Your task to perform on an android device: uninstall "Google Calendar" Image 0: 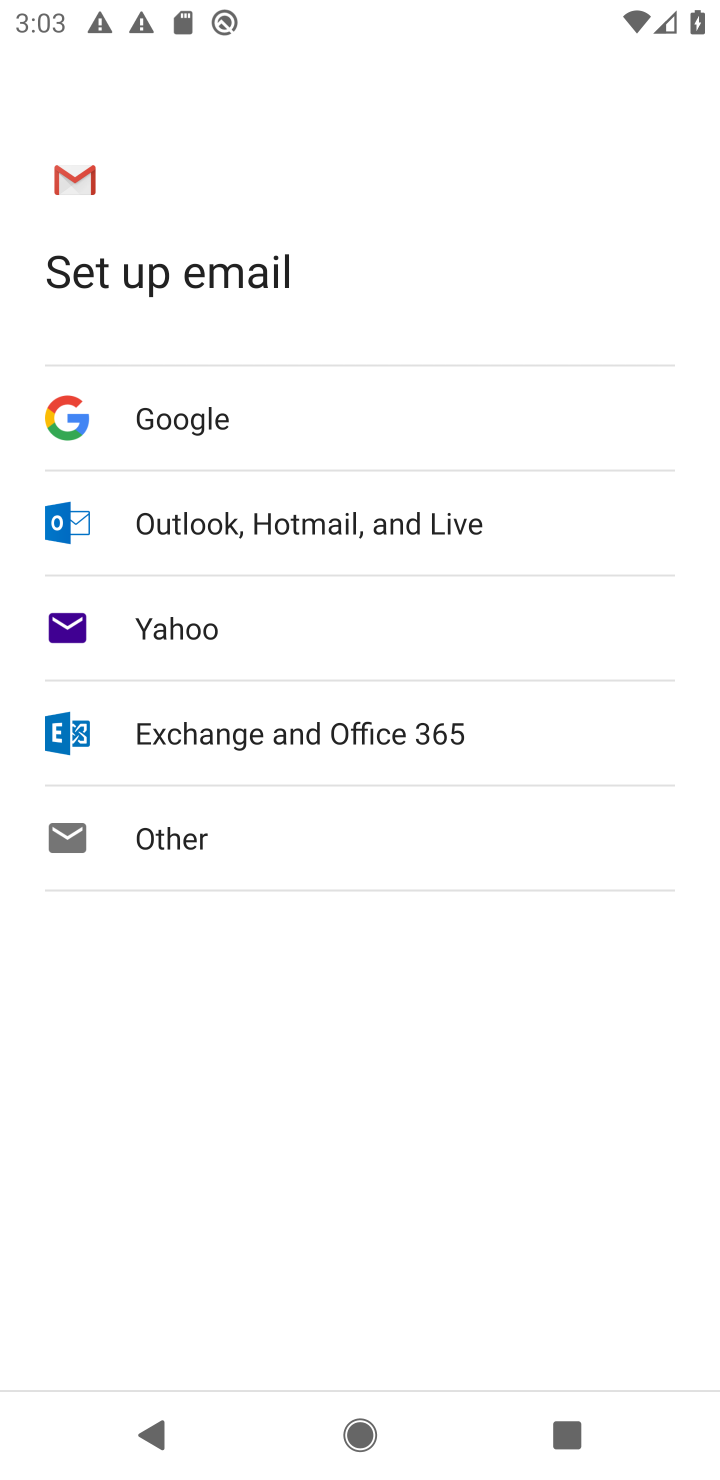
Step 0: press home button
Your task to perform on an android device: uninstall "Google Calendar" Image 1: 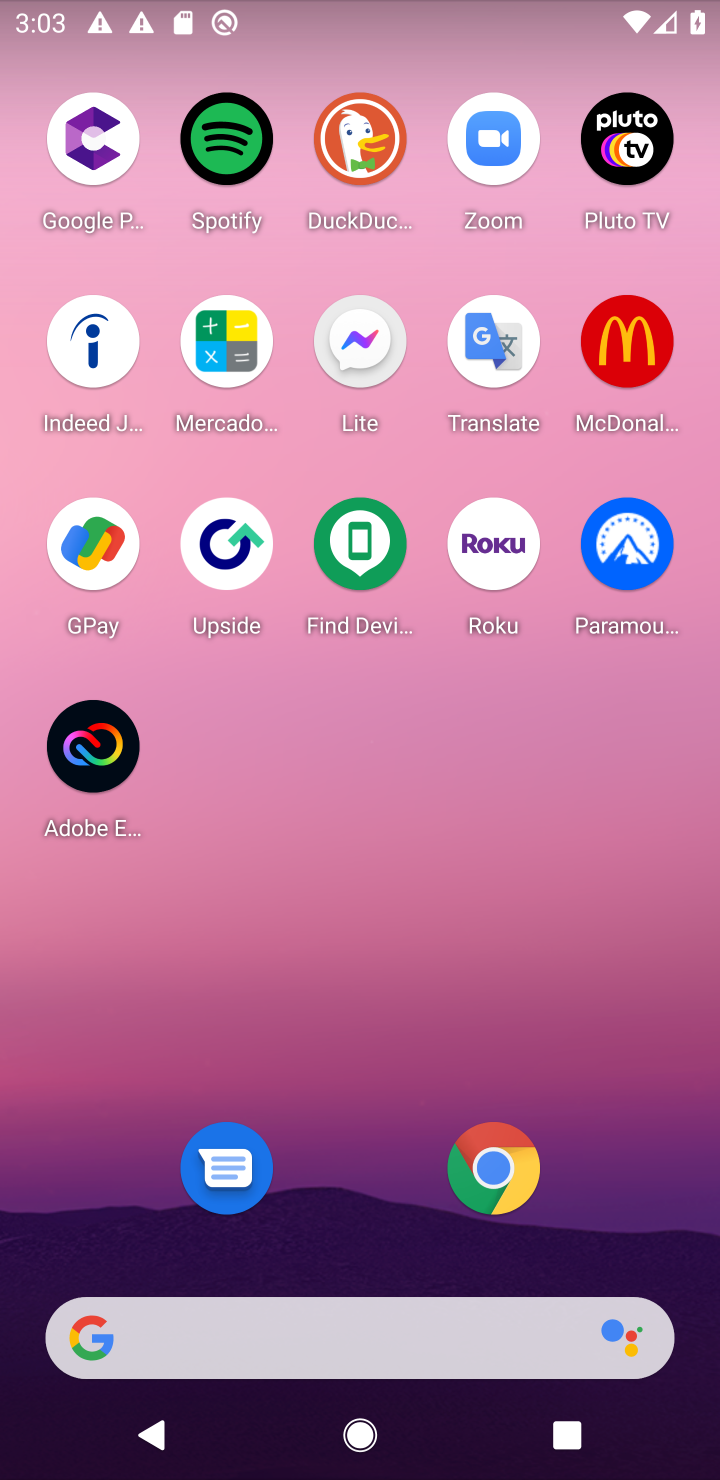
Step 1: drag from (652, 1245) to (624, 32)
Your task to perform on an android device: uninstall "Google Calendar" Image 2: 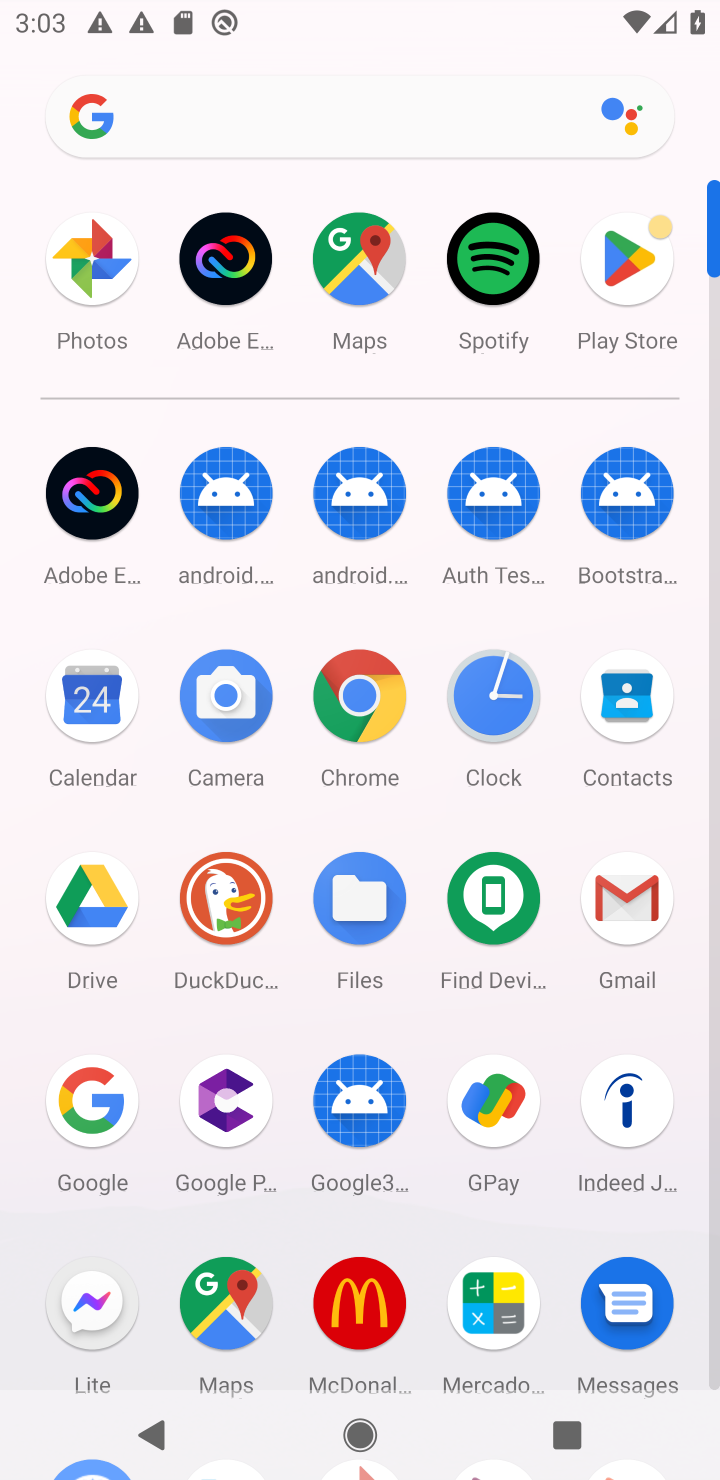
Step 2: click (718, 1332)
Your task to perform on an android device: uninstall "Google Calendar" Image 3: 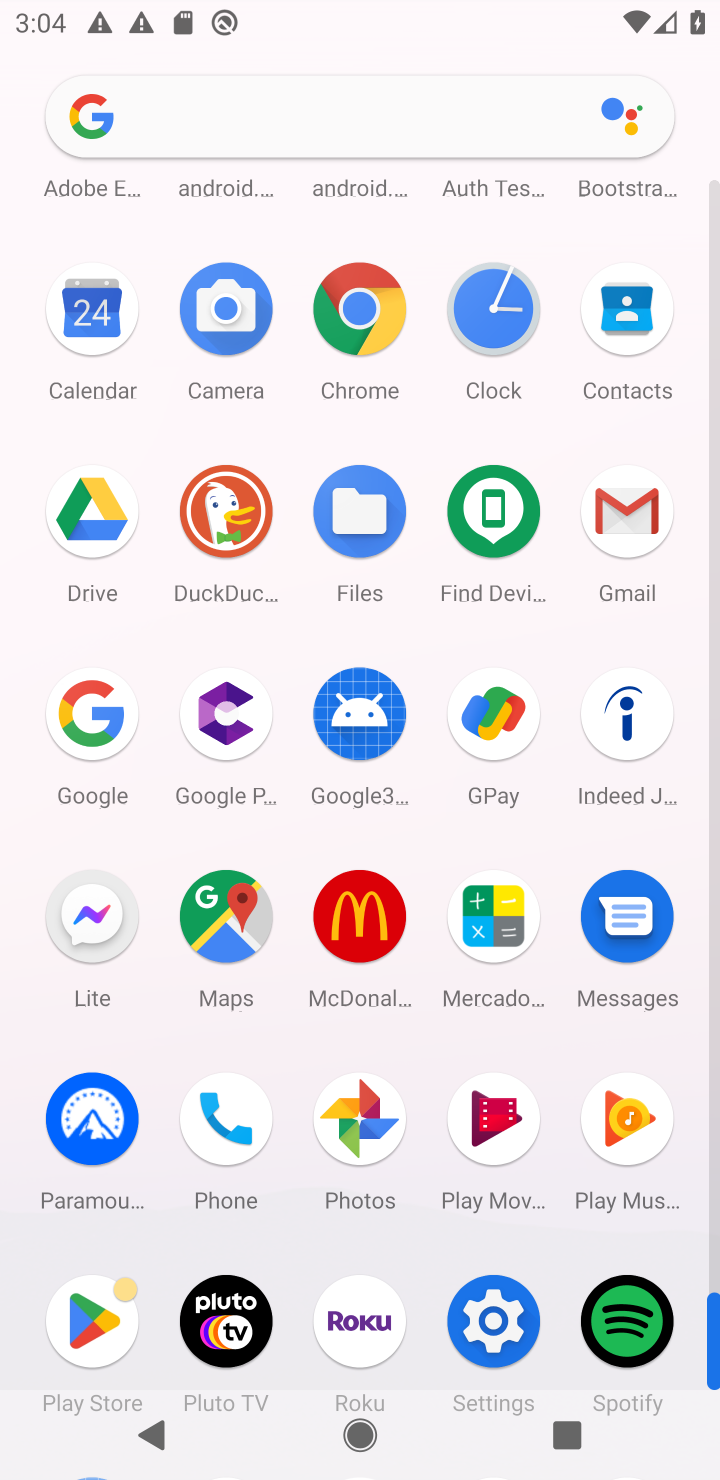
Step 3: click (96, 1326)
Your task to perform on an android device: uninstall "Google Calendar" Image 4: 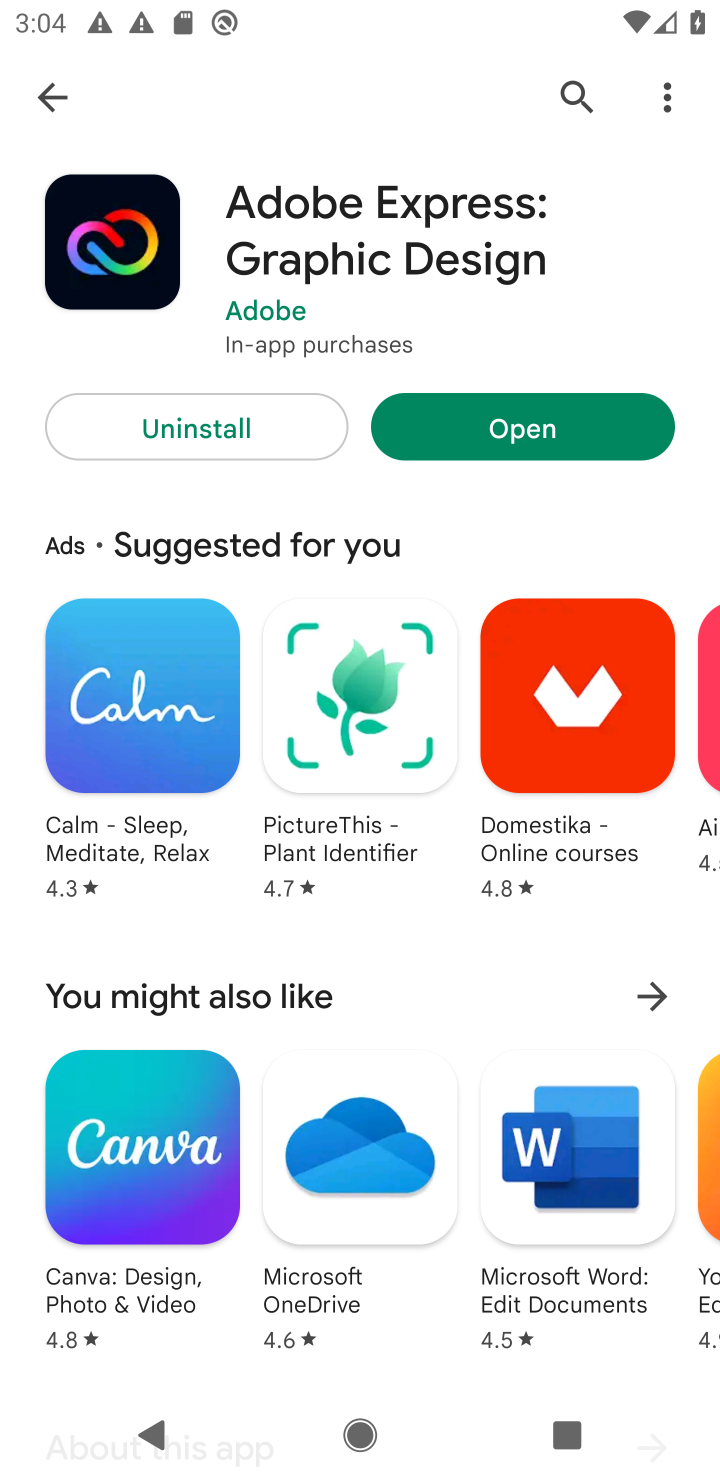
Step 4: click (565, 98)
Your task to perform on an android device: uninstall "Google Calendar" Image 5: 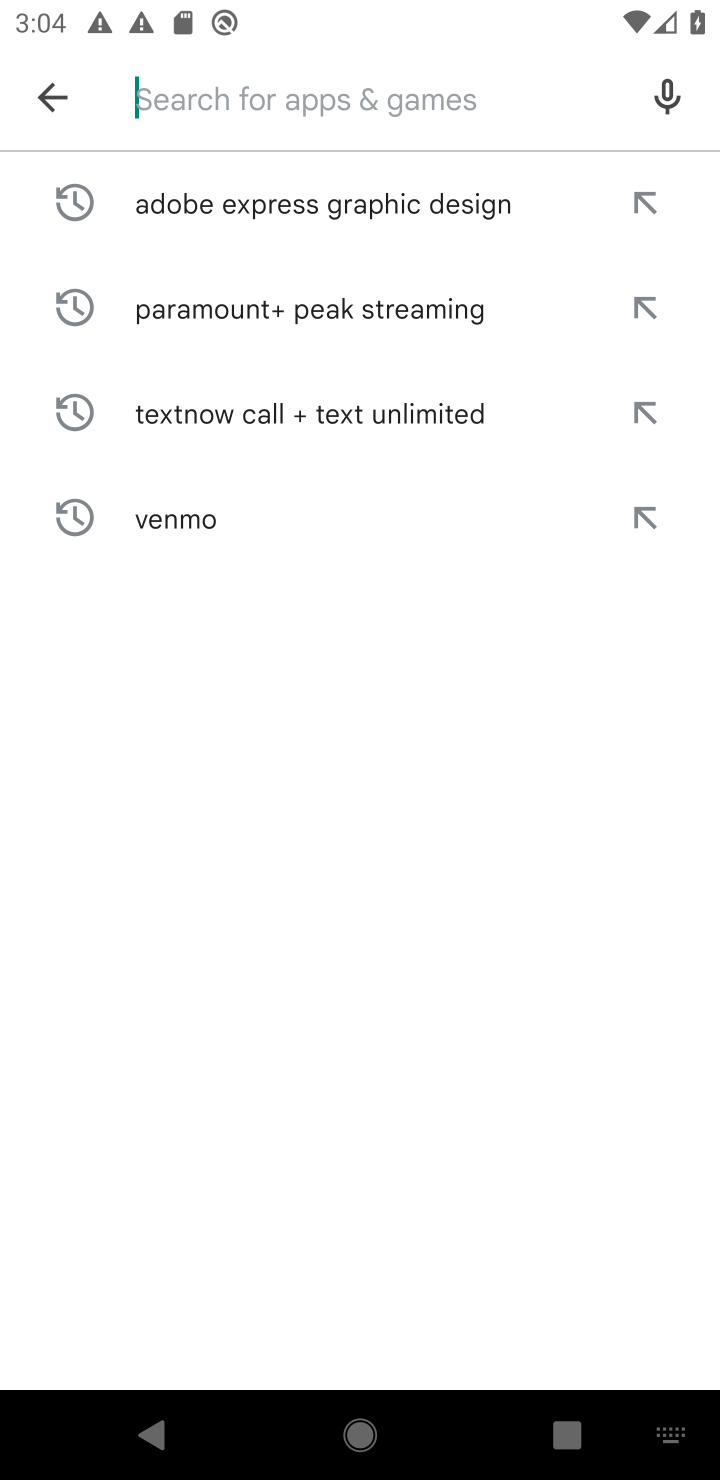
Step 5: type "Google Calendar"
Your task to perform on an android device: uninstall "Google Calendar" Image 6: 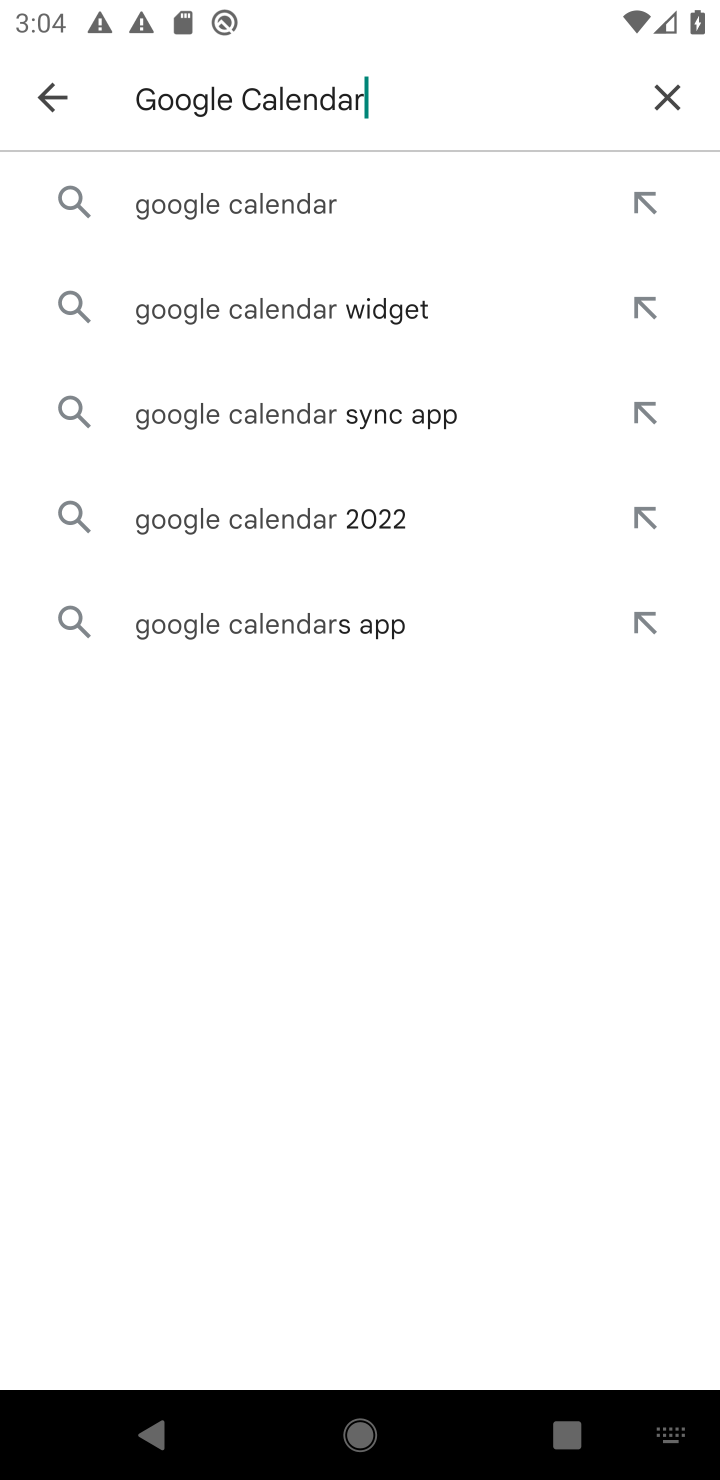
Step 6: click (244, 190)
Your task to perform on an android device: uninstall "Google Calendar" Image 7: 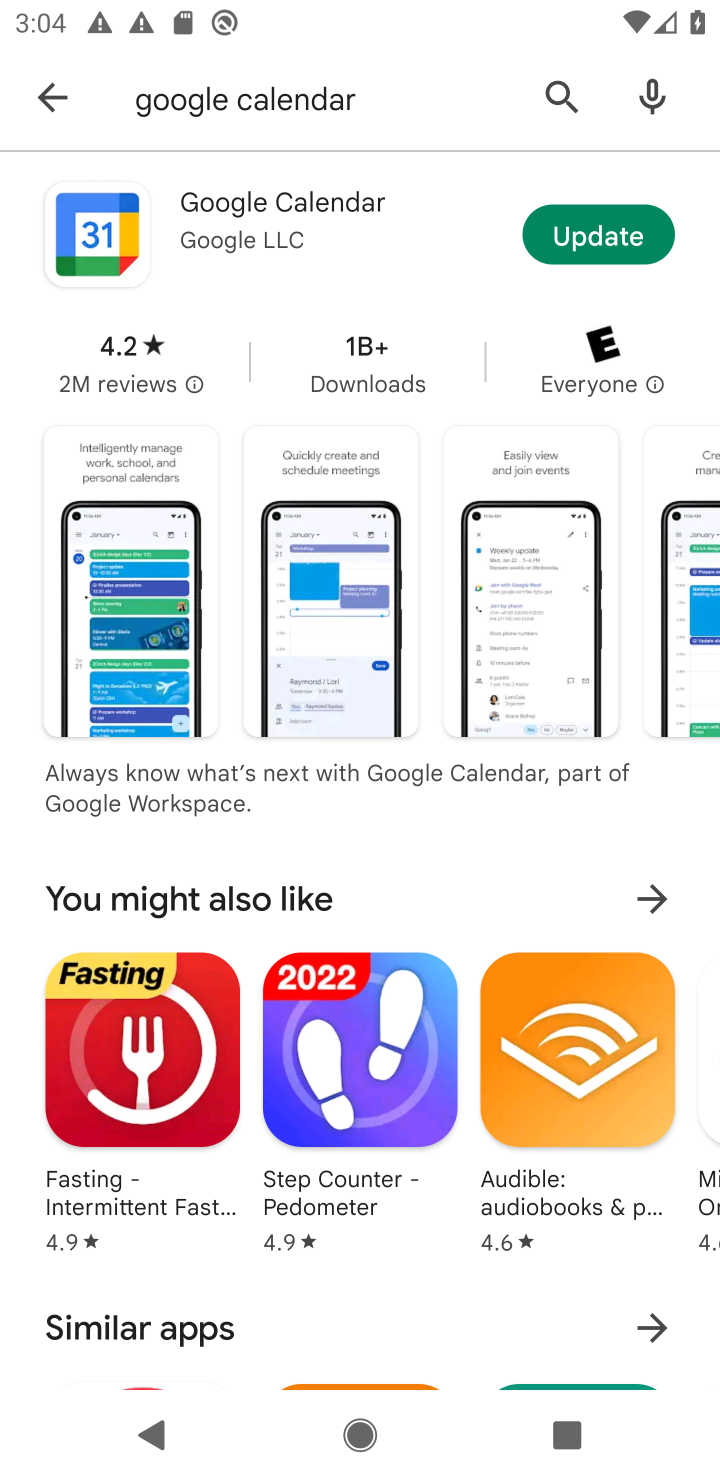
Step 7: click (244, 190)
Your task to perform on an android device: uninstall "Google Calendar" Image 8: 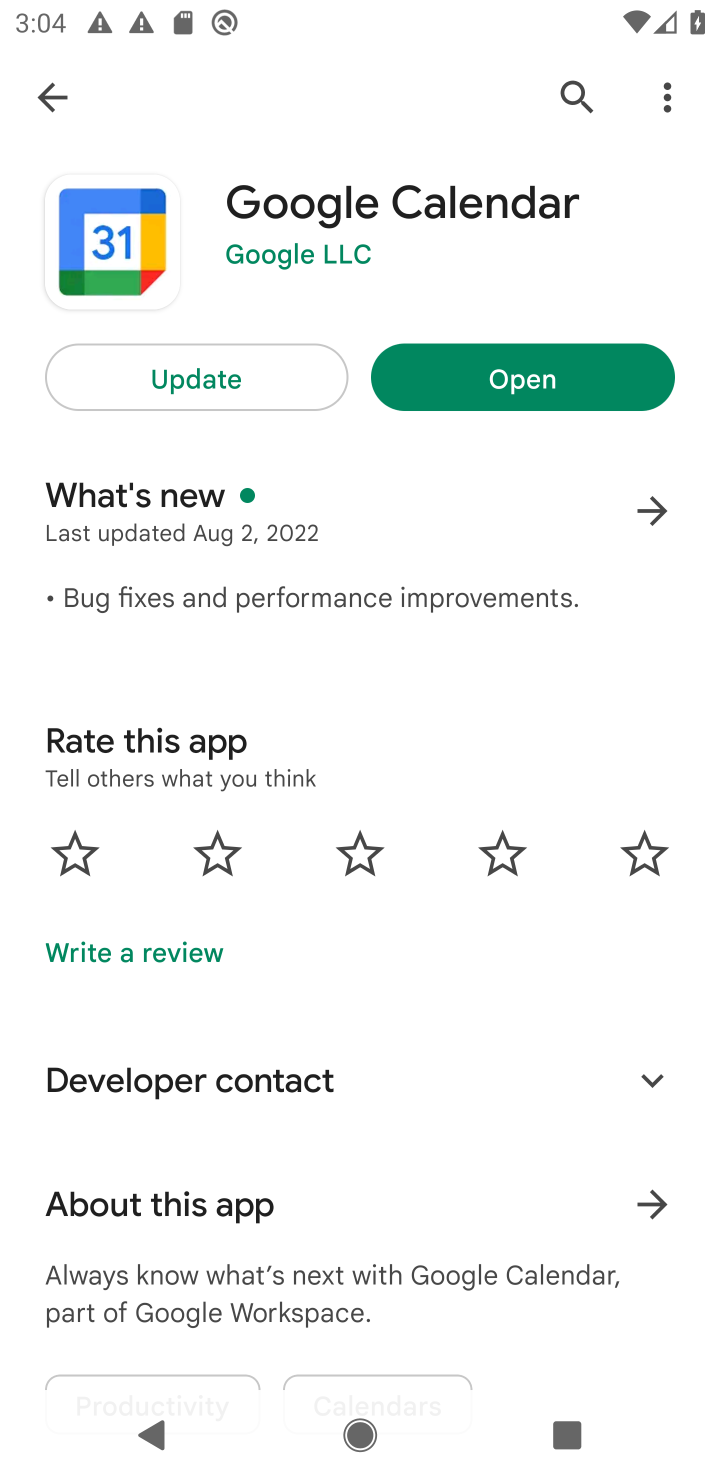
Step 8: click (206, 370)
Your task to perform on an android device: uninstall "Google Calendar" Image 9: 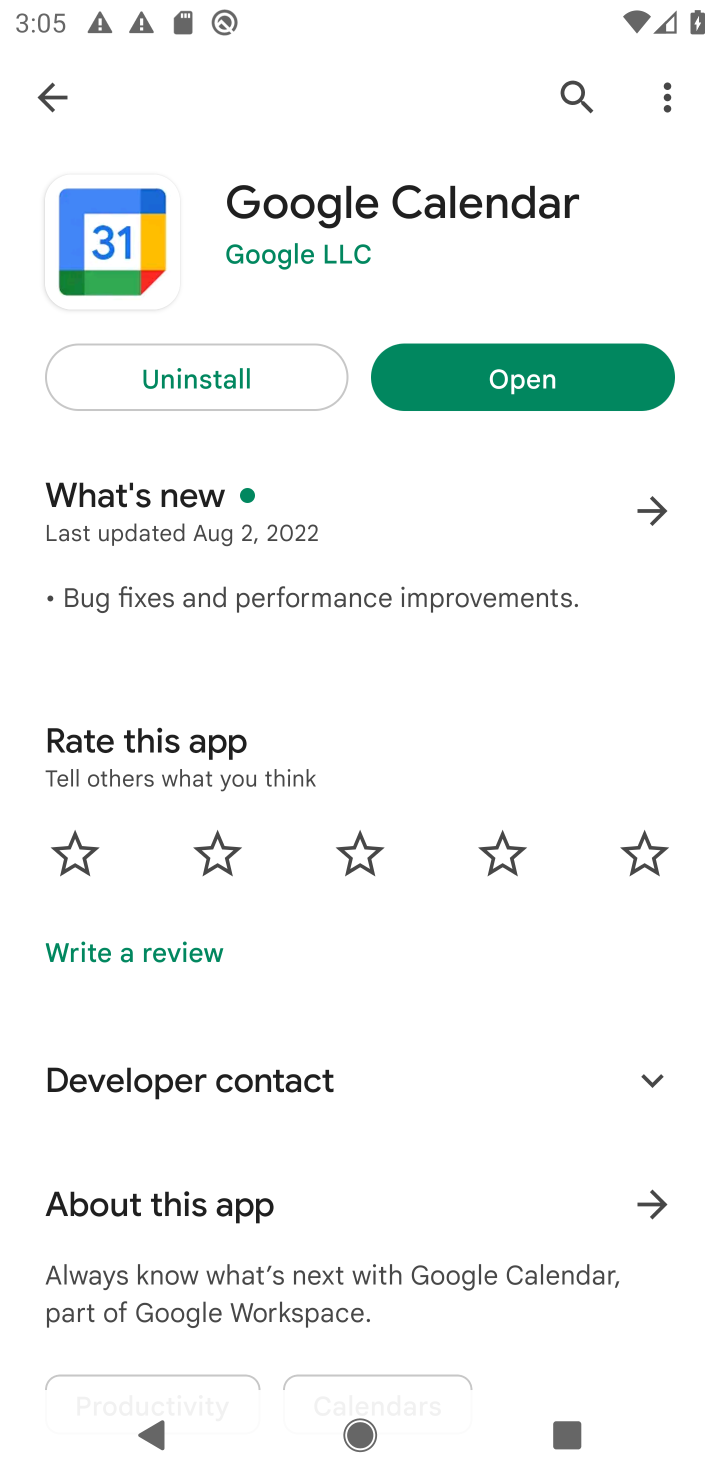
Step 9: click (201, 376)
Your task to perform on an android device: uninstall "Google Calendar" Image 10: 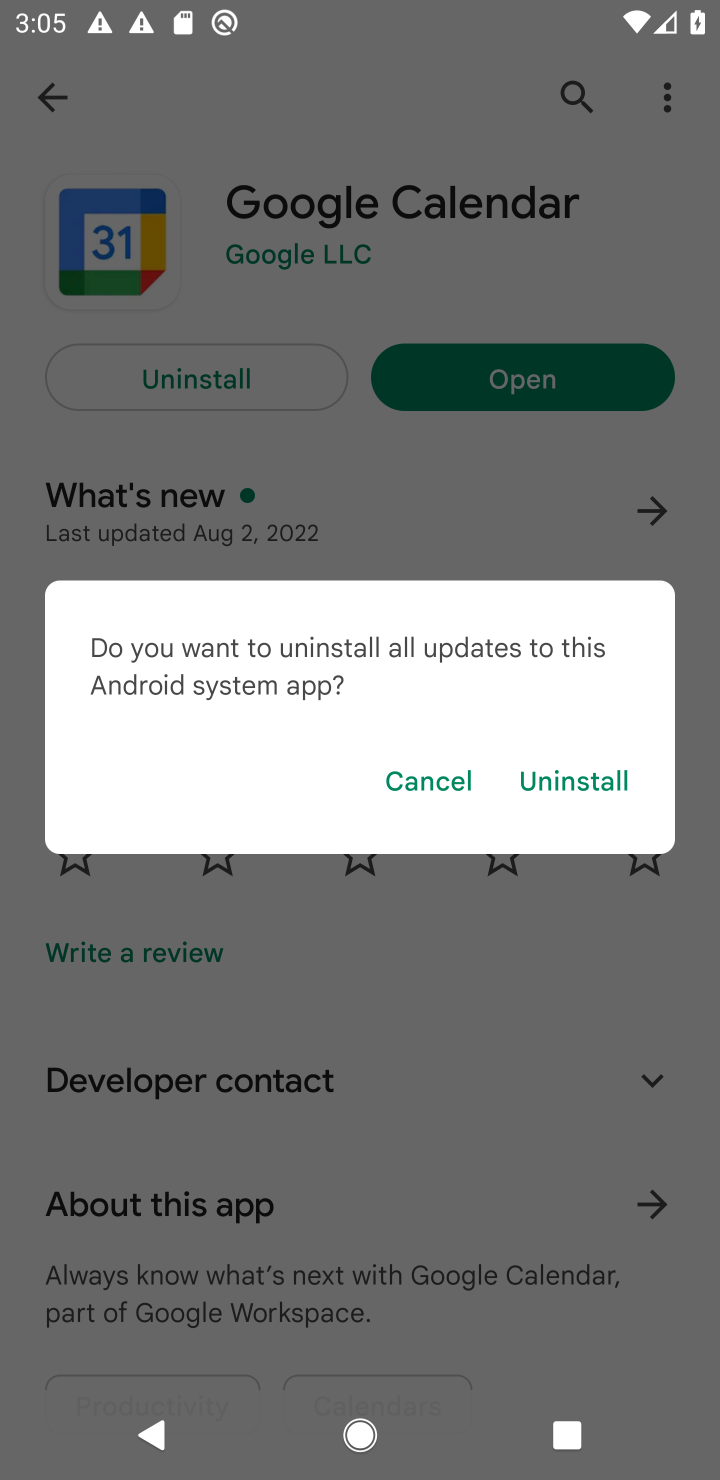
Step 10: click (568, 774)
Your task to perform on an android device: uninstall "Google Calendar" Image 11: 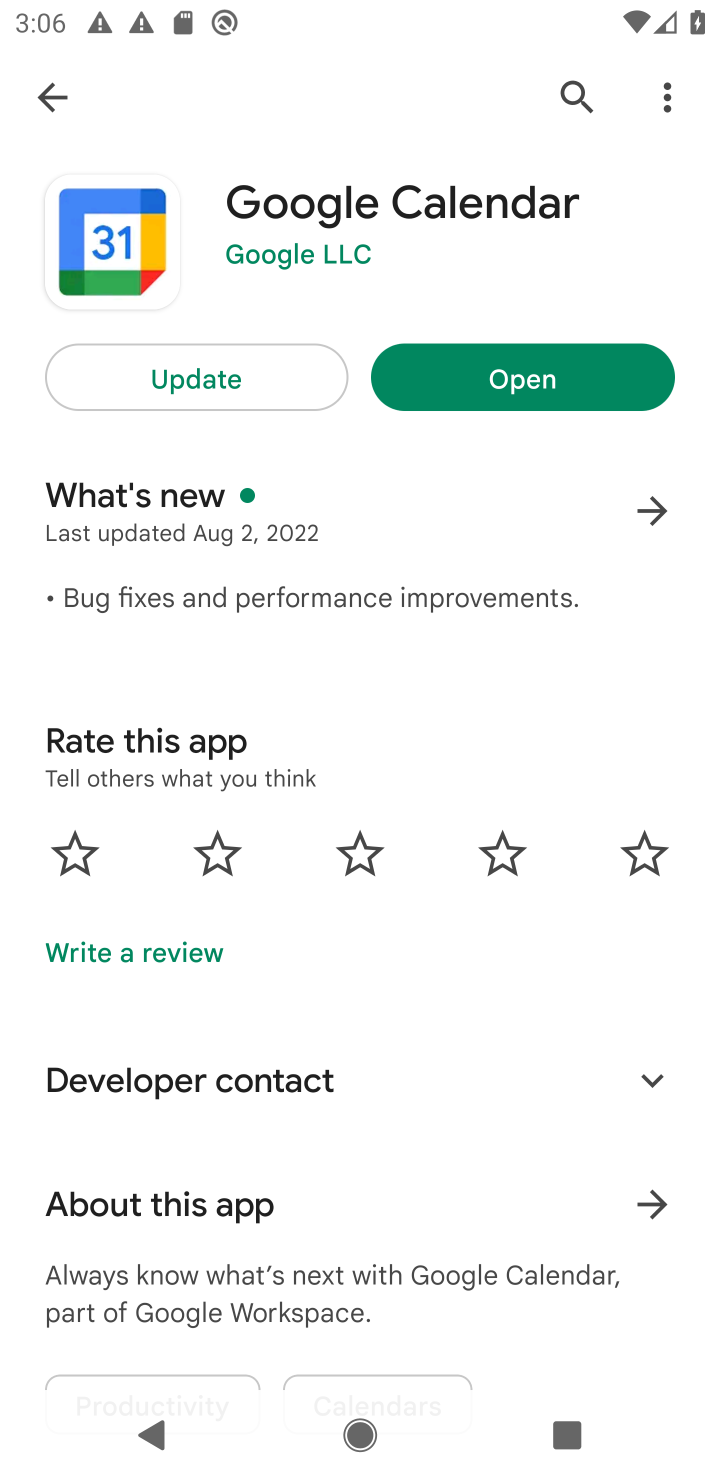
Step 11: task complete